Your task to perform on an android device: find snoozed emails in the gmail app Image 0: 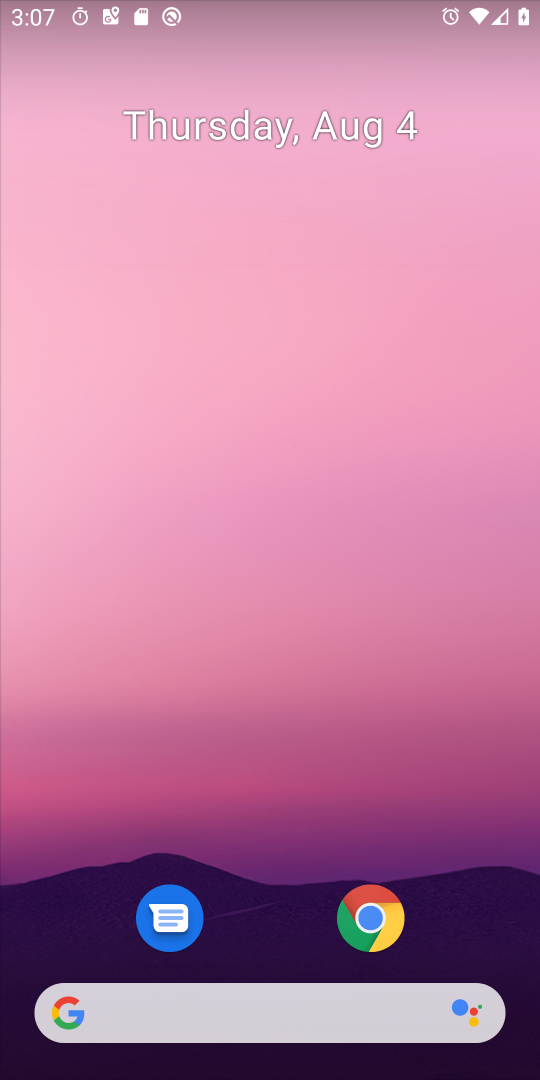
Step 0: drag from (267, 894) to (267, 316)
Your task to perform on an android device: find snoozed emails in the gmail app Image 1: 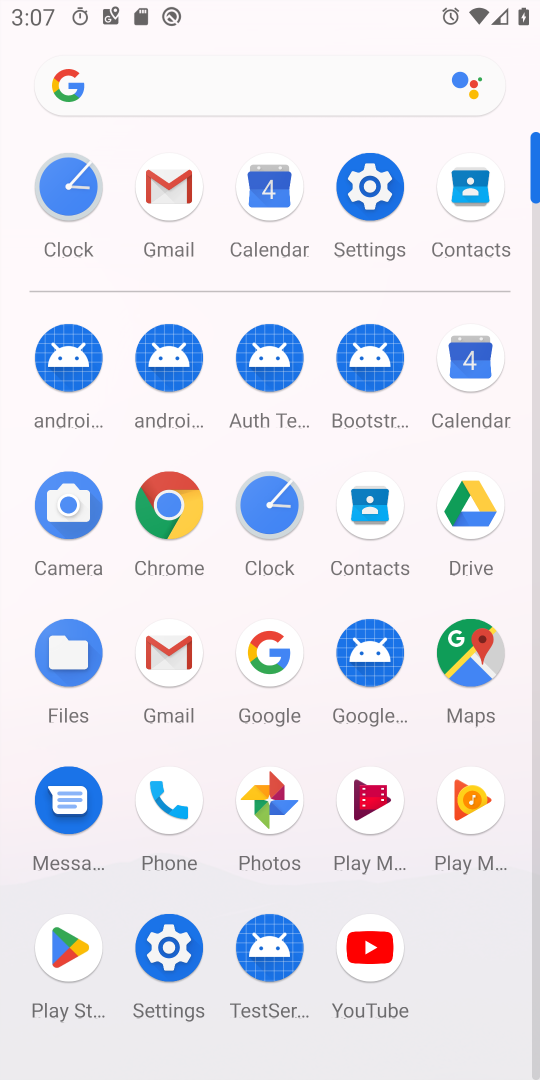
Step 1: click (167, 211)
Your task to perform on an android device: find snoozed emails in the gmail app Image 2: 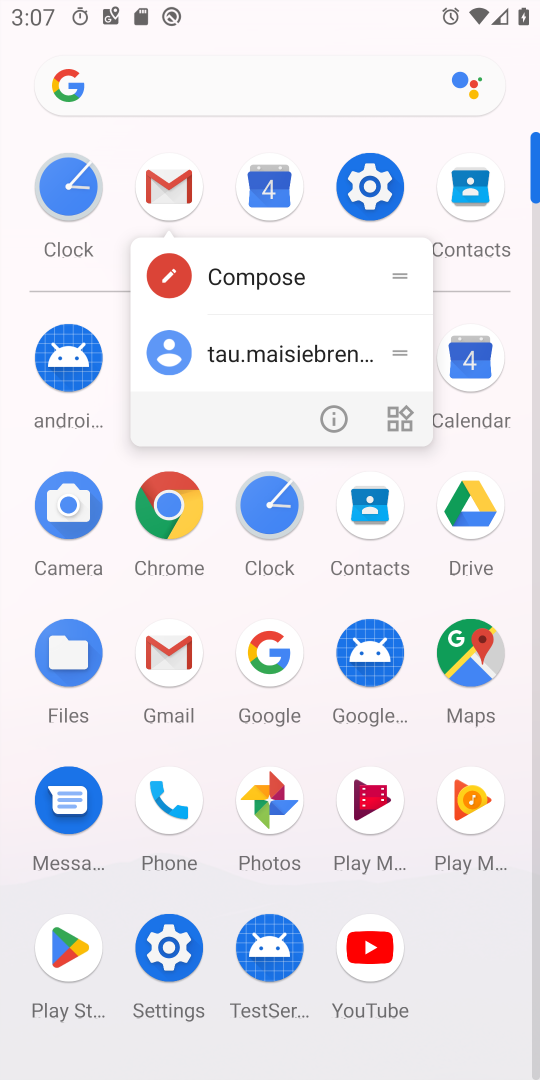
Step 2: click (153, 174)
Your task to perform on an android device: find snoozed emails in the gmail app Image 3: 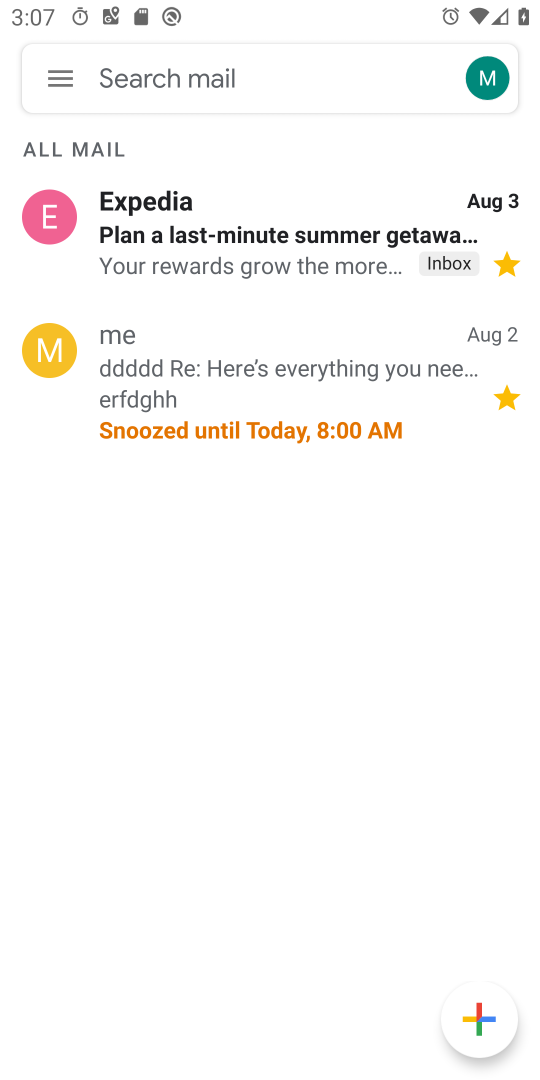
Step 3: click (71, 73)
Your task to perform on an android device: find snoozed emails in the gmail app Image 4: 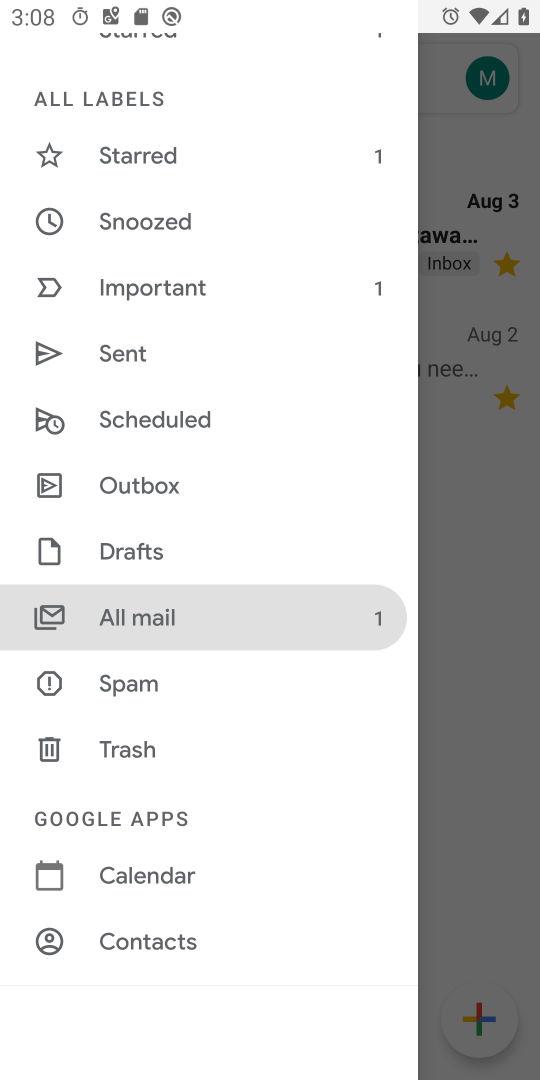
Step 4: click (156, 231)
Your task to perform on an android device: find snoozed emails in the gmail app Image 5: 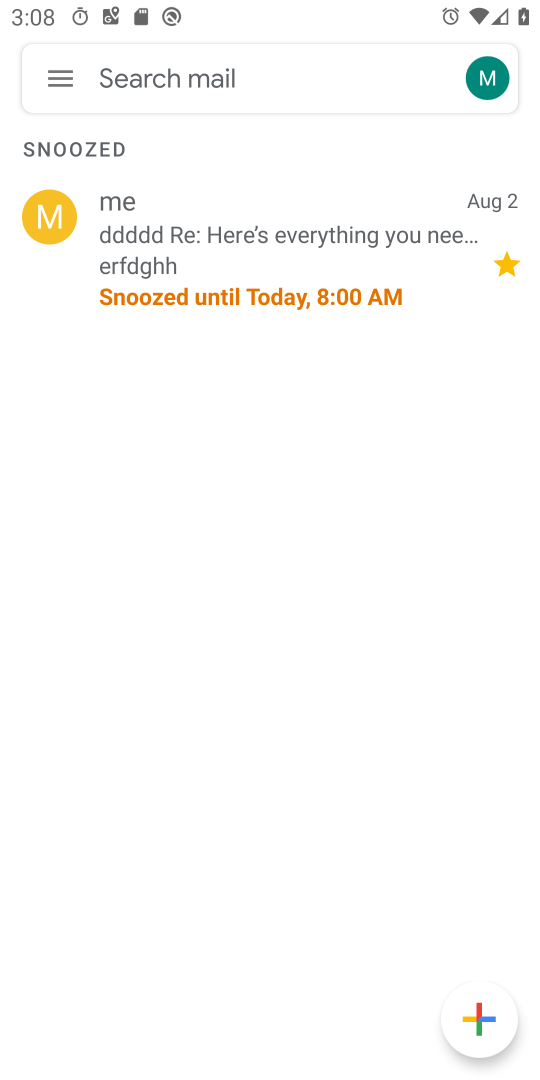
Step 5: task complete